Your task to perform on an android device: open chrome and create a bookmark for the current page Image 0: 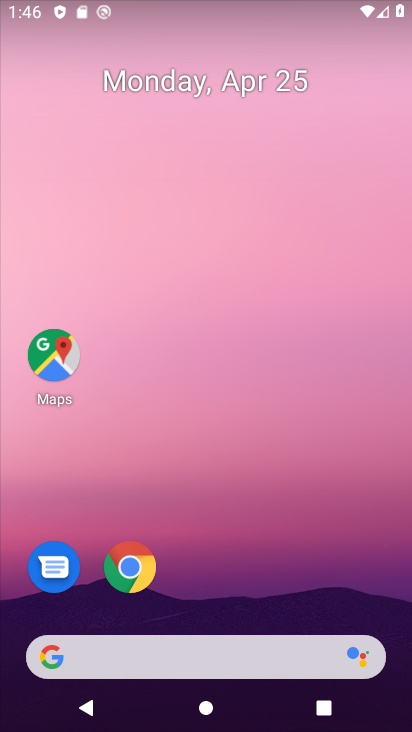
Step 0: click (122, 574)
Your task to perform on an android device: open chrome and create a bookmark for the current page Image 1: 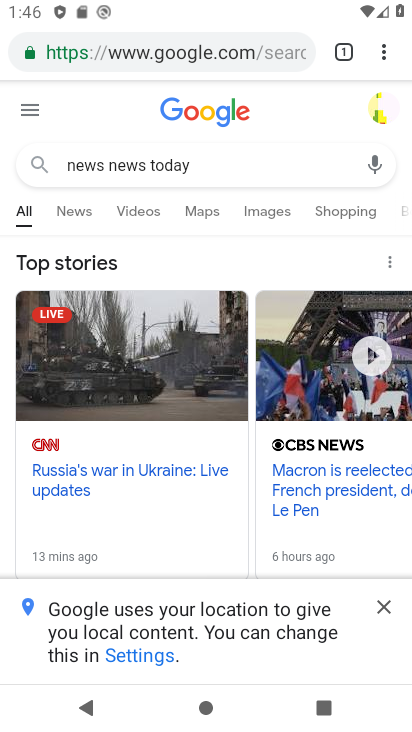
Step 1: click (396, 54)
Your task to perform on an android device: open chrome and create a bookmark for the current page Image 2: 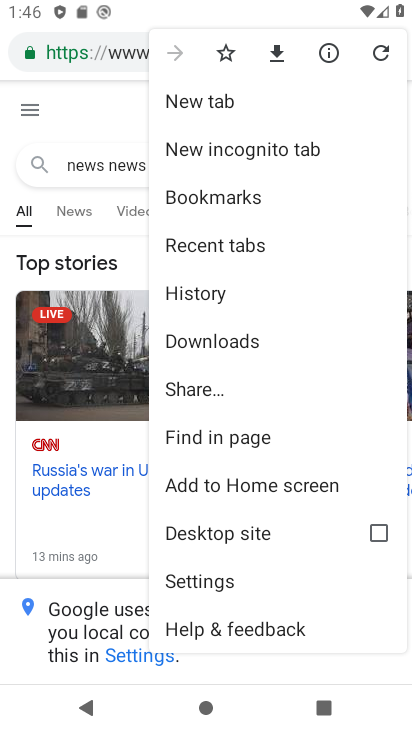
Step 2: click (227, 46)
Your task to perform on an android device: open chrome and create a bookmark for the current page Image 3: 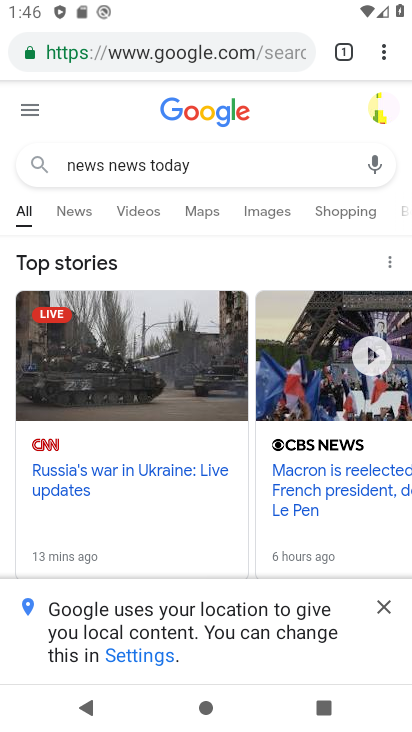
Step 3: task complete